Your task to perform on an android device: turn off translation in the chrome app Image 0: 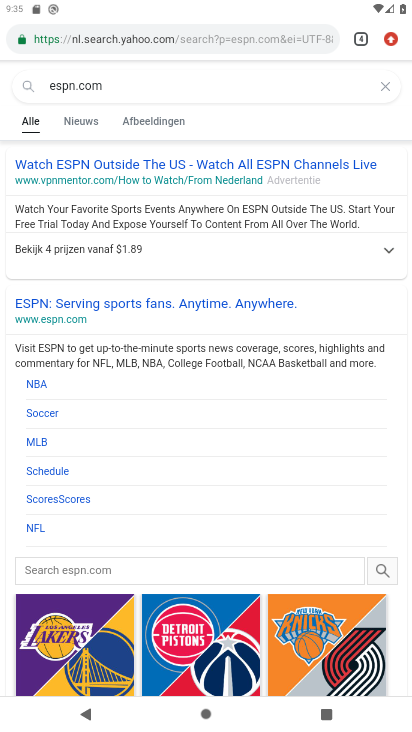
Step 0: press home button
Your task to perform on an android device: turn off translation in the chrome app Image 1: 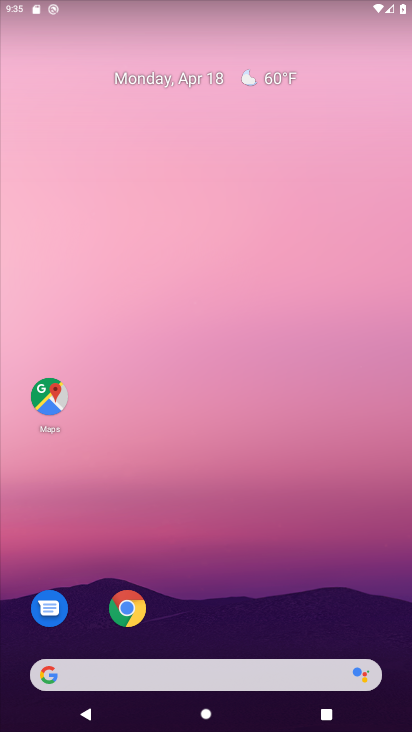
Step 1: click (121, 620)
Your task to perform on an android device: turn off translation in the chrome app Image 2: 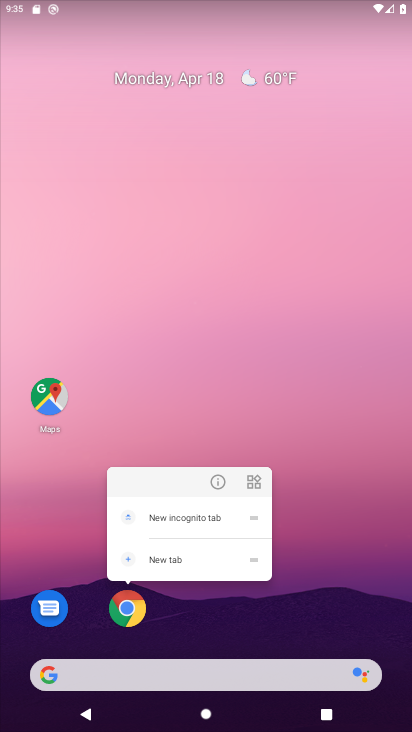
Step 2: click (133, 623)
Your task to perform on an android device: turn off translation in the chrome app Image 3: 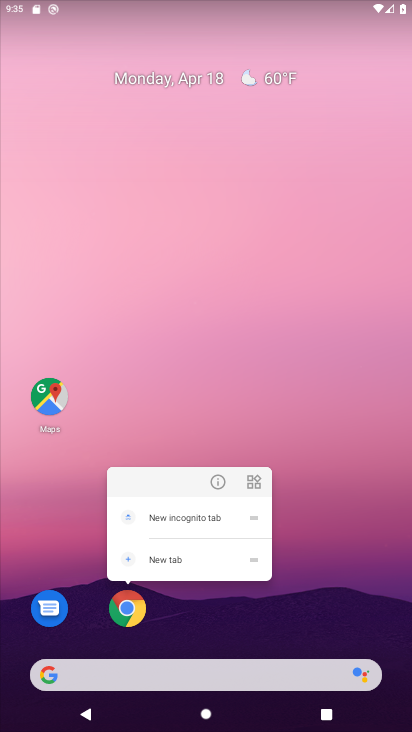
Step 3: click (132, 616)
Your task to perform on an android device: turn off translation in the chrome app Image 4: 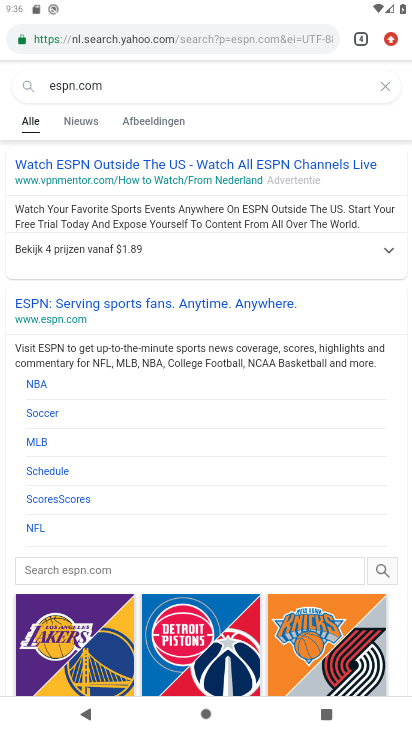
Step 4: click (386, 42)
Your task to perform on an android device: turn off translation in the chrome app Image 5: 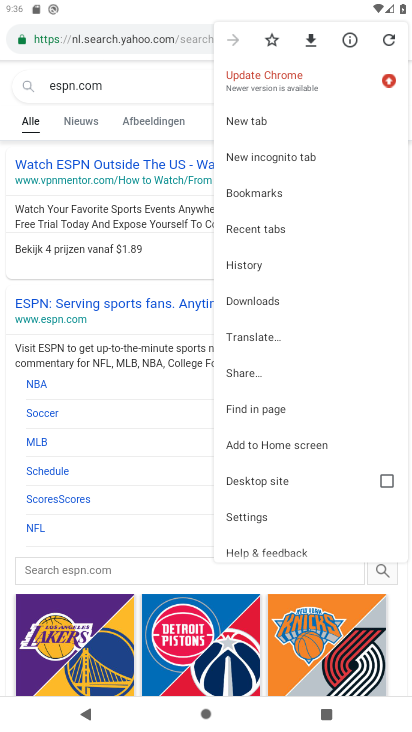
Step 5: click (262, 521)
Your task to perform on an android device: turn off translation in the chrome app Image 6: 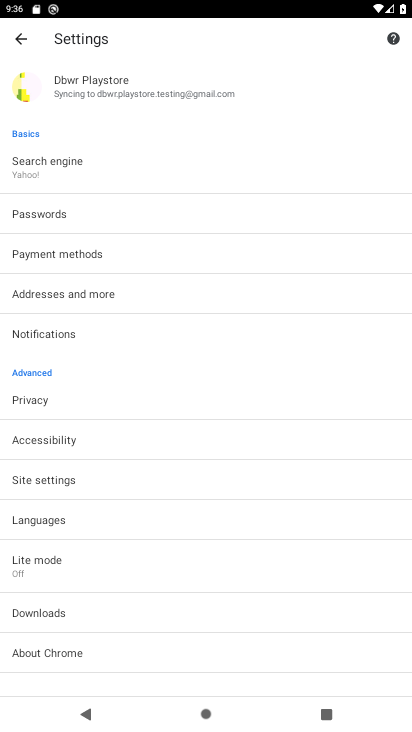
Step 6: drag from (190, 621) to (234, 242)
Your task to perform on an android device: turn off translation in the chrome app Image 7: 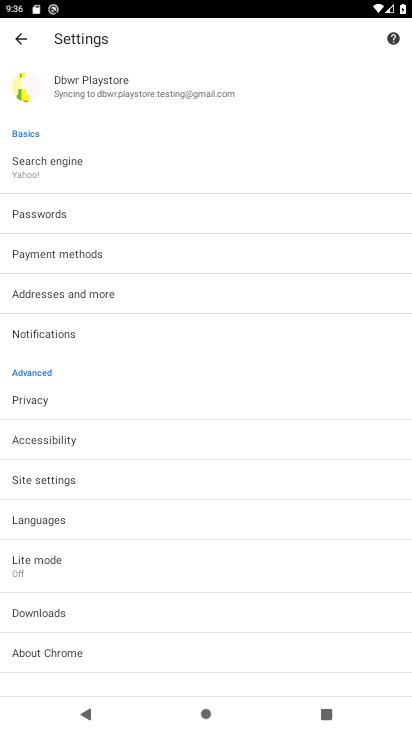
Step 7: click (96, 526)
Your task to perform on an android device: turn off translation in the chrome app Image 8: 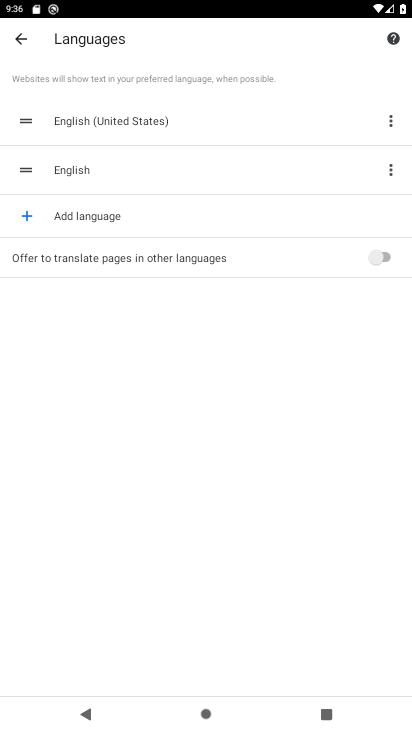
Step 8: task complete